Your task to perform on an android device: open app "Expedia: Hotels, Flights & Car" (install if not already installed) Image 0: 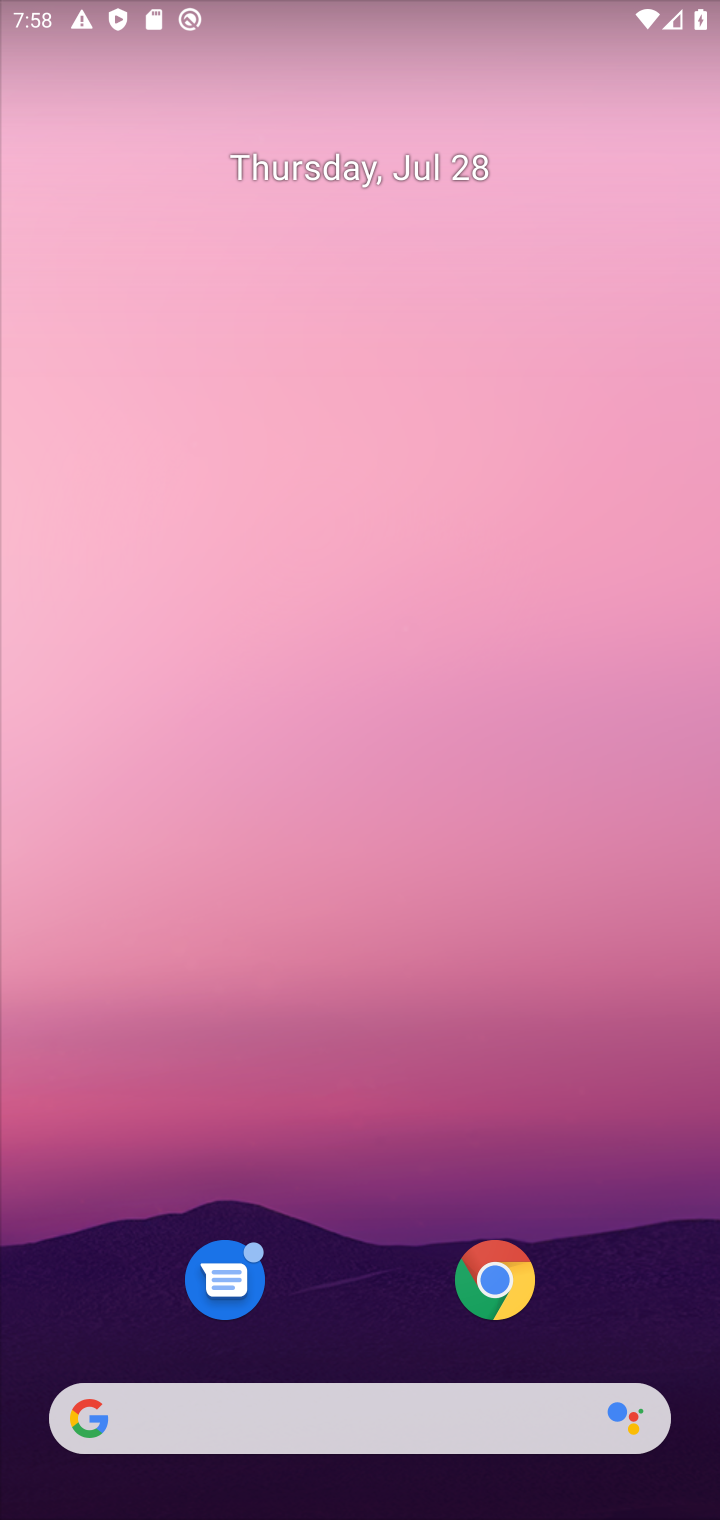
Step 0: drag from (360, 1376) to (316, 223)
Your task to perform on an android device: open app "Expedia: Hotels, Flights & Car" (install if not already installed) Image 1: 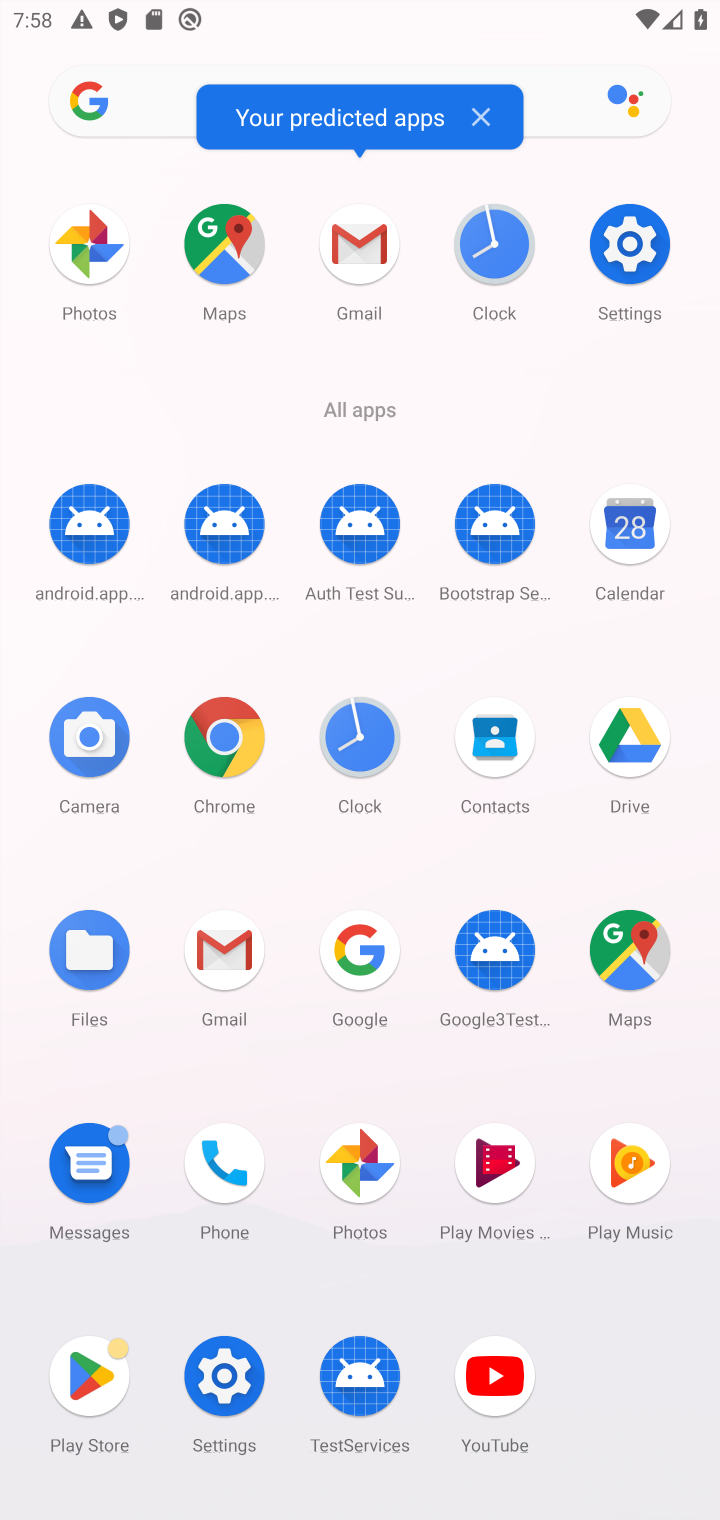
Step 1: click (60, 1403)
Your task to perform on an android device: open app "Expedia: Hotels, Flights & Car" (install if not already installed) Image 2: 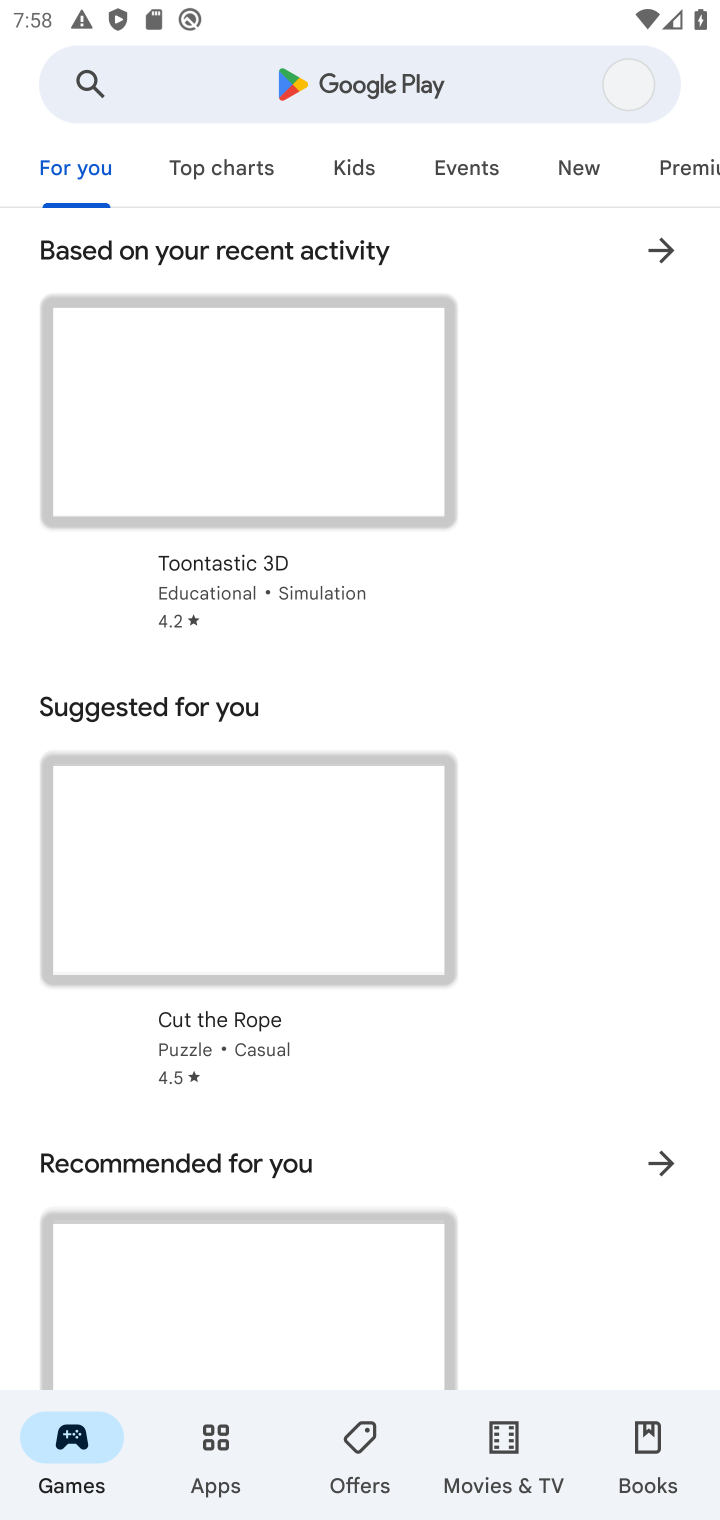
Step 2: click (420, 94)
Your task to perform on an android device: open app "Expedia: Hotels, Flights & Car" (install if not already installed) Image 3: 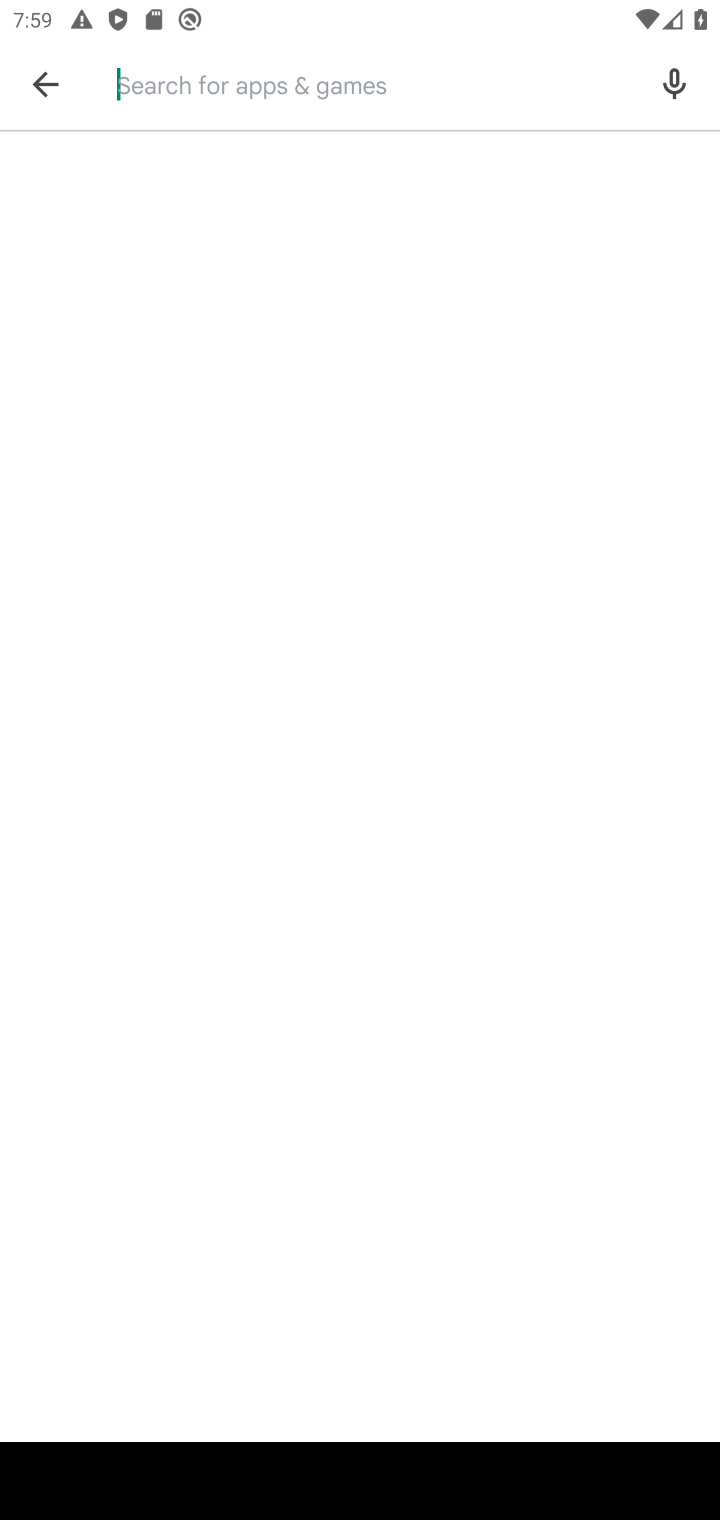
Step 3: type "expedia"
Your task to perform on an android device: open app "Expedia: Hotels, Flights & Car" (install if not already installed) Image 4: 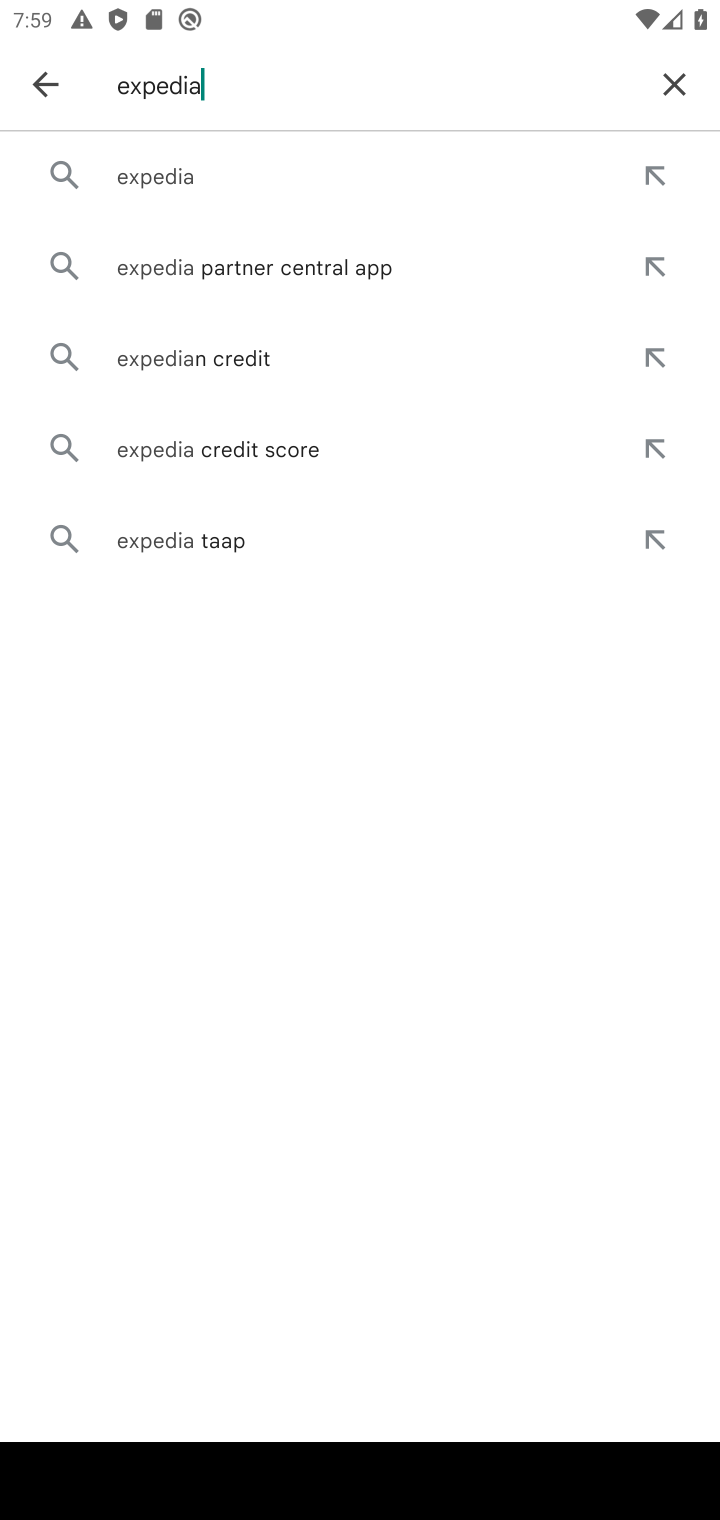
Step 4: click (265, 177)
Your task to perform on an android device: open app "Expedia: Hotels, Flights & Car" (install if not already installed) Image 5: 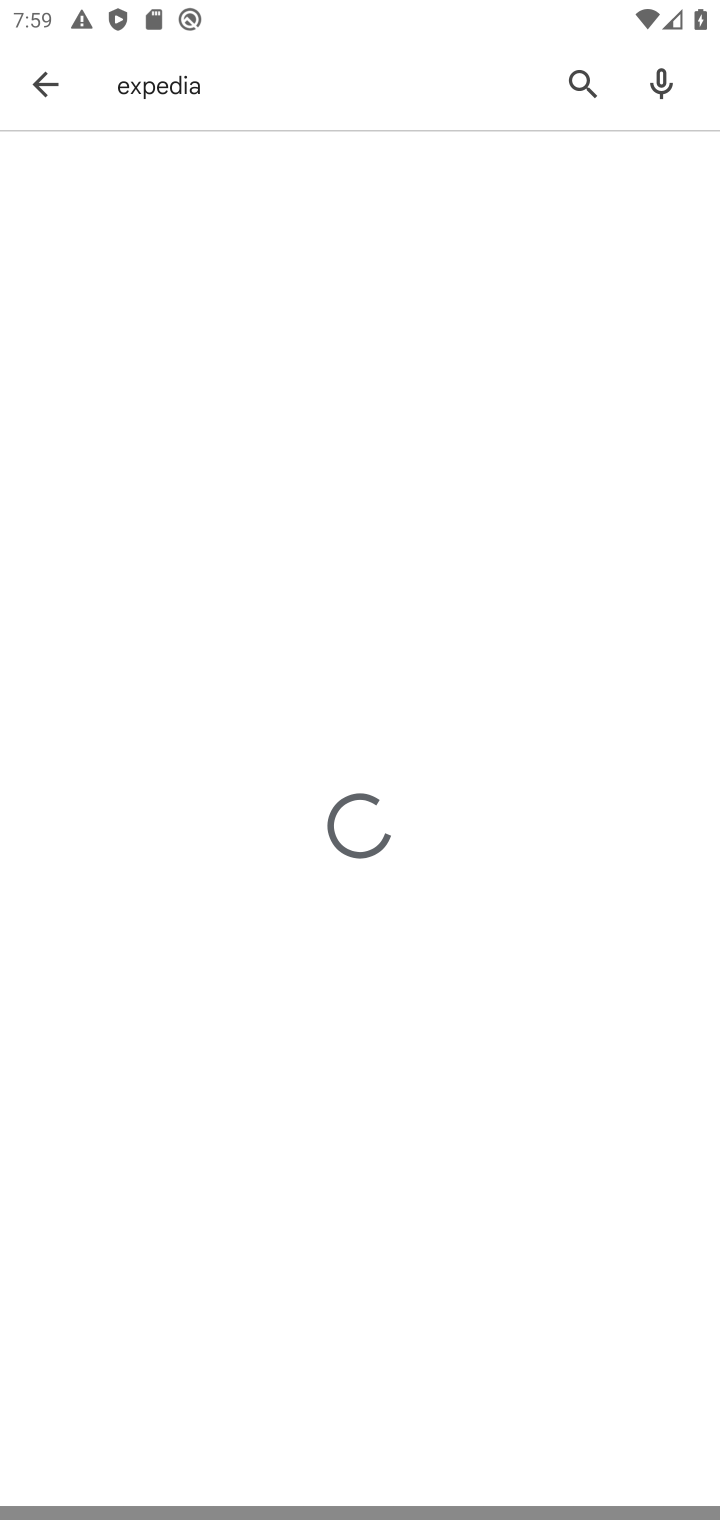
Step 5: task complete